Your task to perform on an android device: Search for Italian restaurants on Maps Image 0: 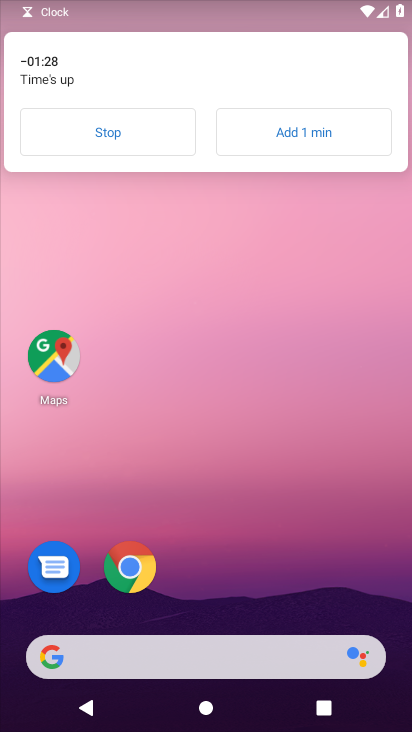
Step 0: click (96, 141)
Your task to perform on an android device: Search for Italian restaurants on Maps Image 1: 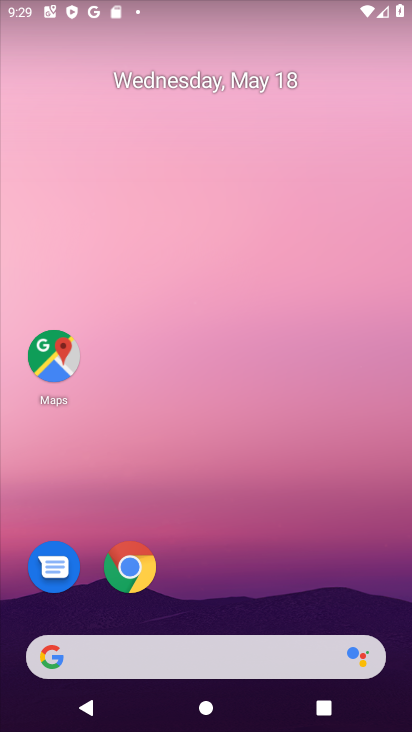
Step 1: click (41, 352)
Your task to perform on an android device: Search for Italian restaurants on Maps Image 2: 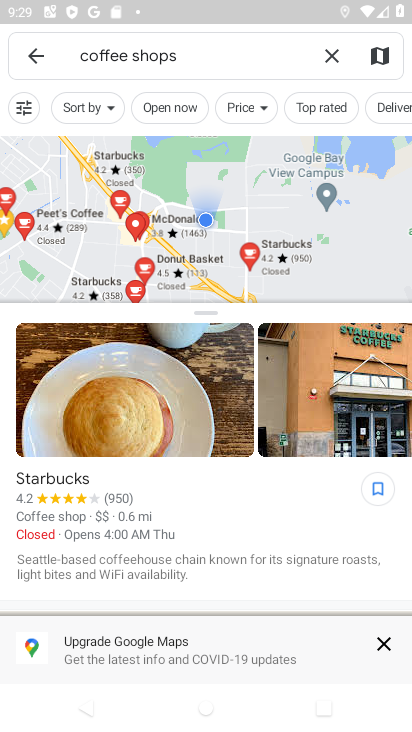
Step 2: click (332, 56)
Your task to perform on an android device: Search for Italian restaurants on Maps Image 3: 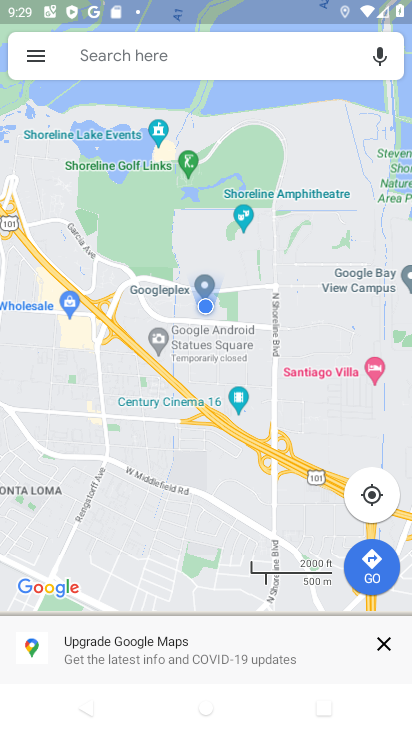
Step 3: click (191, 57)
Your task to perform on an android device: Search for Italian restaurants on Maps Image 4: 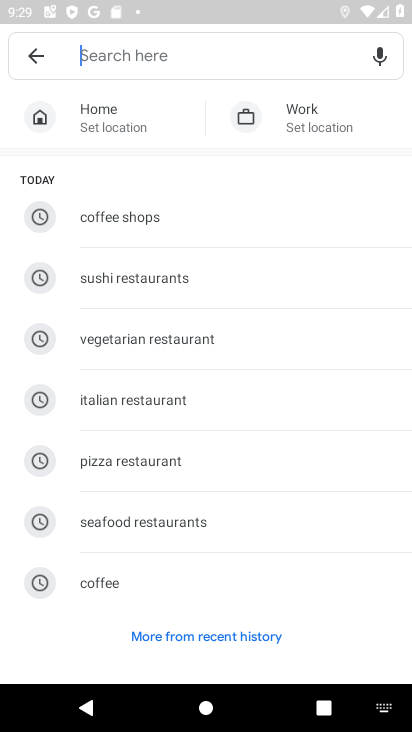
Step 4: click (159, 401)
Your task to perform on an android device: Search for Italian restaurants on Maps Image 5: 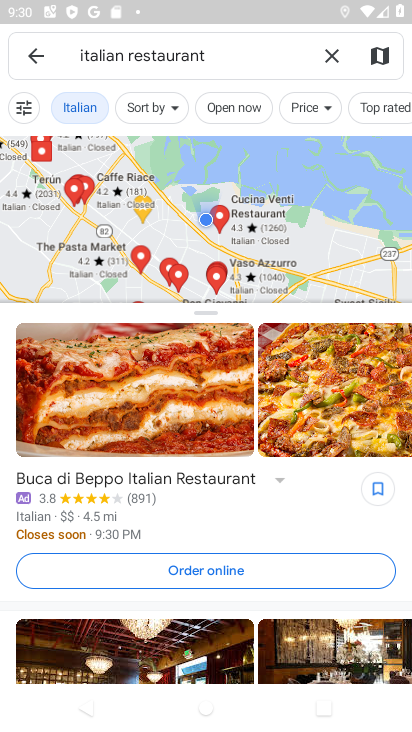
Step 5: task complete